Your task to perform on an android device: open a bookmark in the chrome app Image 0: 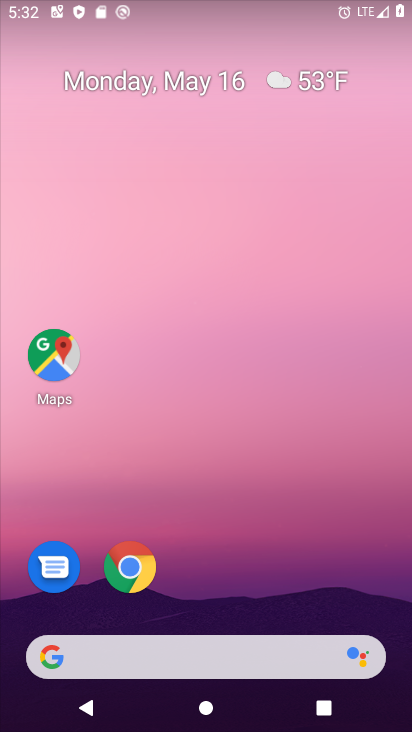
Step 0: drag from (326, 635) to (328, 0)
Your task to perform on an android device: open a bookmark in the chrome app Image 1: 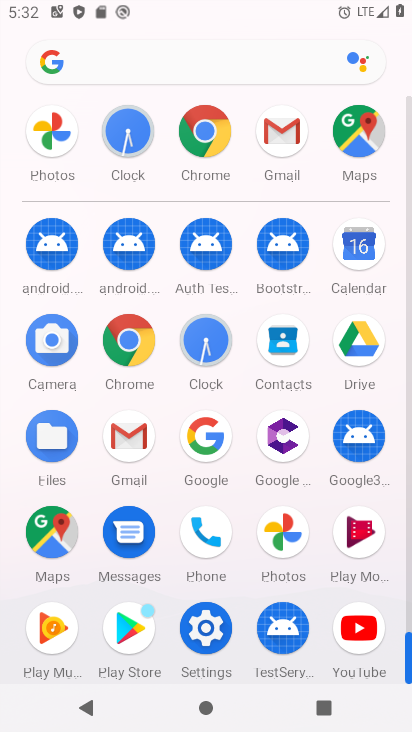
Step 1: click (137, 342)
Your task to perform on an android device: open a bookmark in the chrome app Image 2: 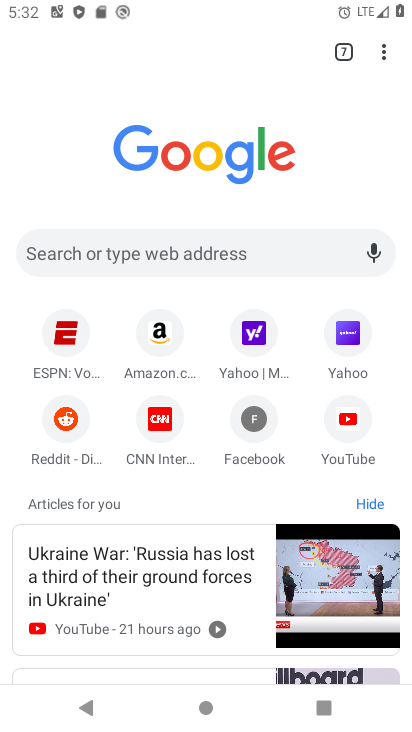
Step 2: click (383, 53)
Your task to perform on an android device: open a bookmark in the chrome app Image 3: 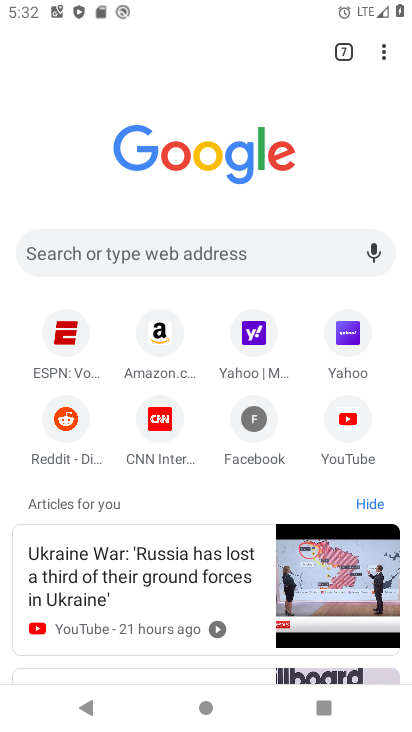
Step 3: click (393, 45)
Your task to perform on an android device: open a bookmark in the chrome app Image 4: 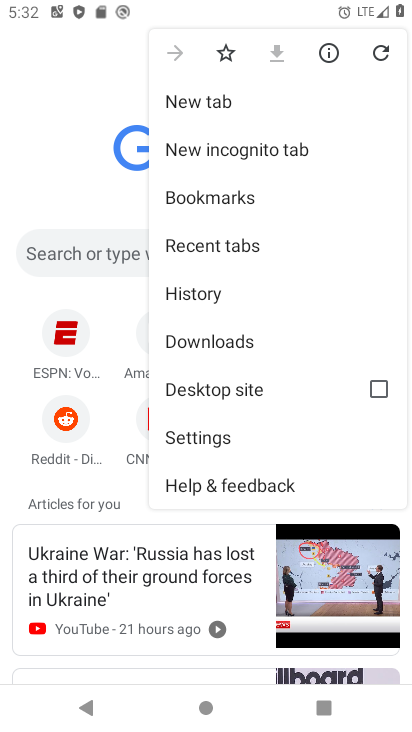
Step 4: click (260, 198)
Your task to perform on an android device: open a bookmark in the chrome app Image 5: 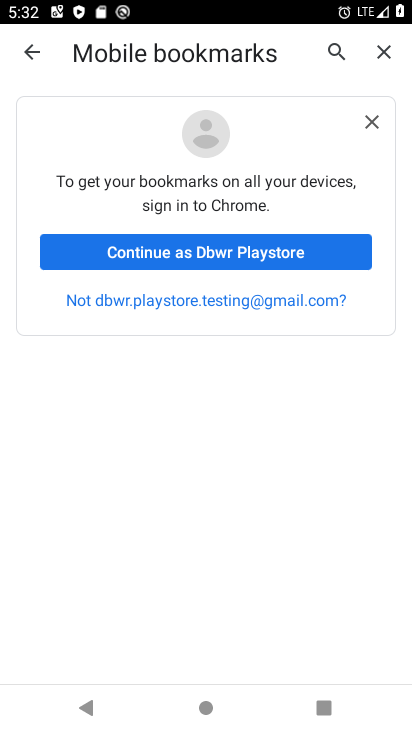
Step 5: task complete